Your task to perform on an android device: Go to Amazon Image 0: 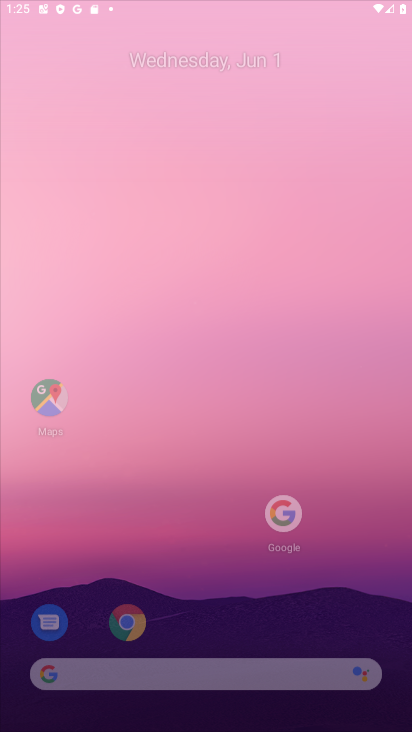
Step 0: press home button
Your task to perform on an android device: Go to Amazon Image 1: 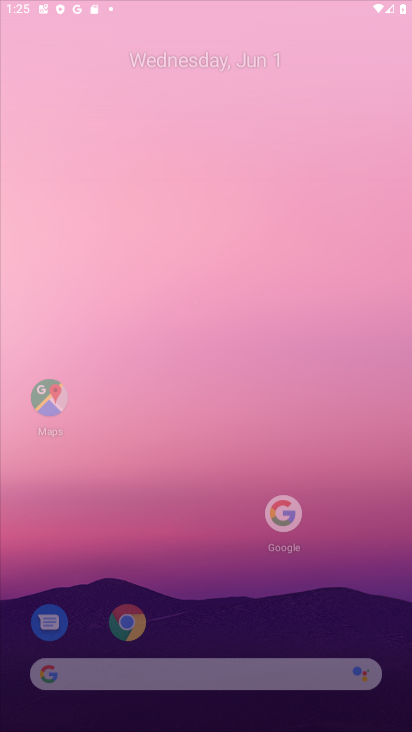
Step 1: click (328, 172)
Your task to perform on an android device: Go to Amazon Image 2: 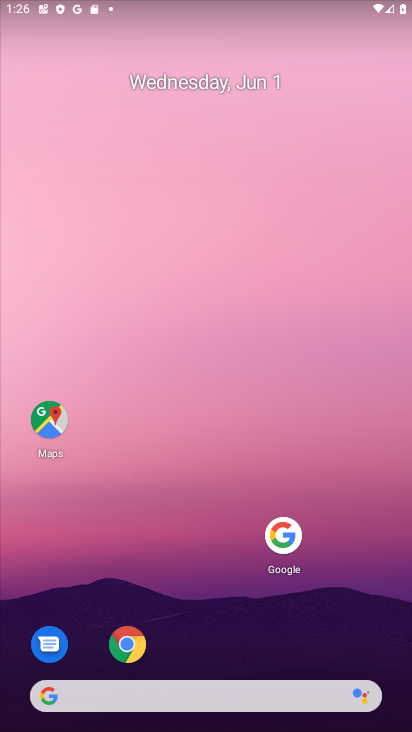
Step 2: click (137, 643)
Your task to perform on an android device: Go to Amazon Image 3: 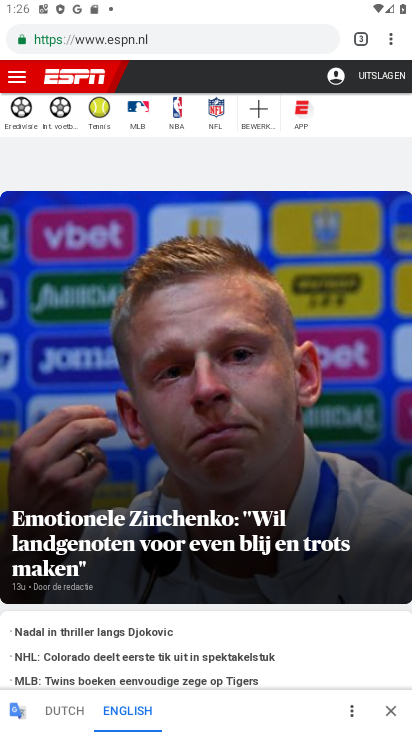
Step 3: drag from (388, 39) to (274, 126)
Your task to perform on an android device: Go to Amazon Image 4: 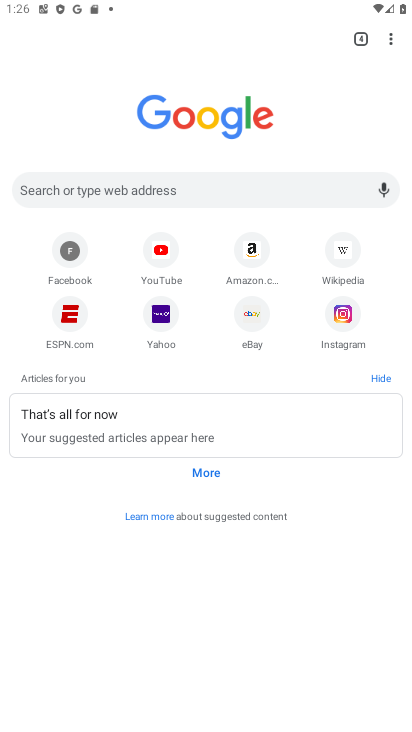
Step 4: click (248, 260)
Your task to perform on an android device: Go to Amazon Image 5: 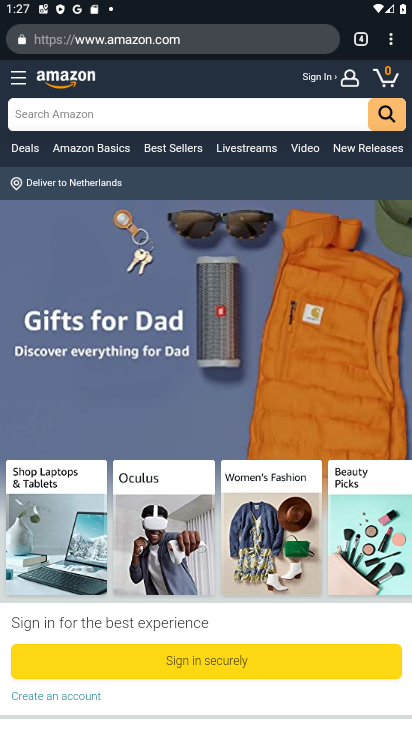
Step 5: task complete